Your task to perform on an android device: Open network settings Image 0: 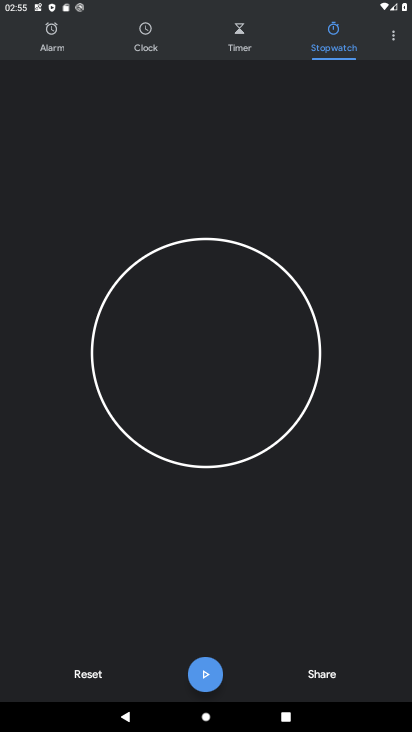
Step 0: press home button
Your task to perform on an android device: Open network settings Image 1: 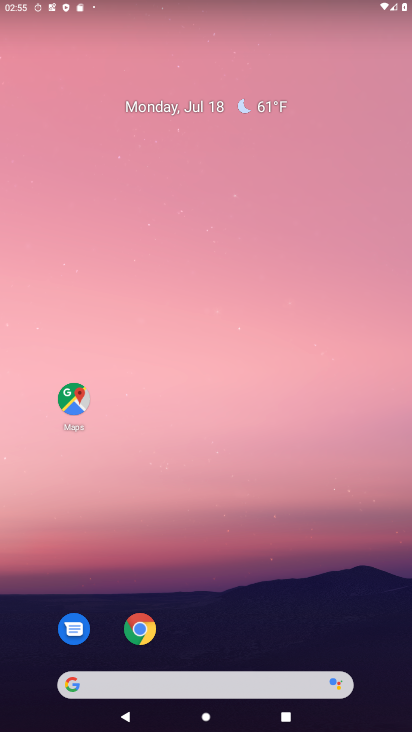
Step 1: drag from (191, 690) to (159, 179)
Your task to perform on an android device: Open network settings Image 2: 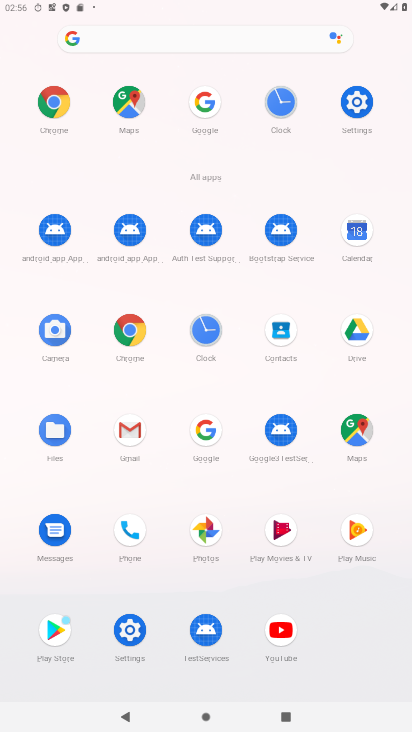
Step 2: click (357, 102)
Your task to perform on an android device: Open network settings Image 3: 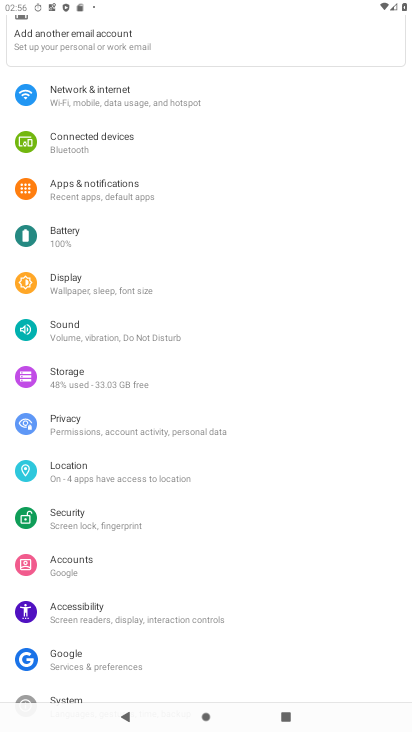
Step 3: click (80, 96)
Your task to perform on an android device: Open network settings Image 4: 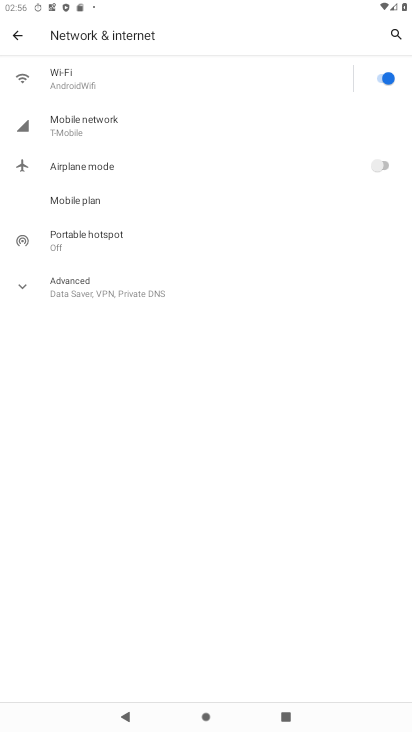
Step 4: task complete